Your task to perform on an android device: Open the Play Movies app and select the watchlist tab. Image 0: 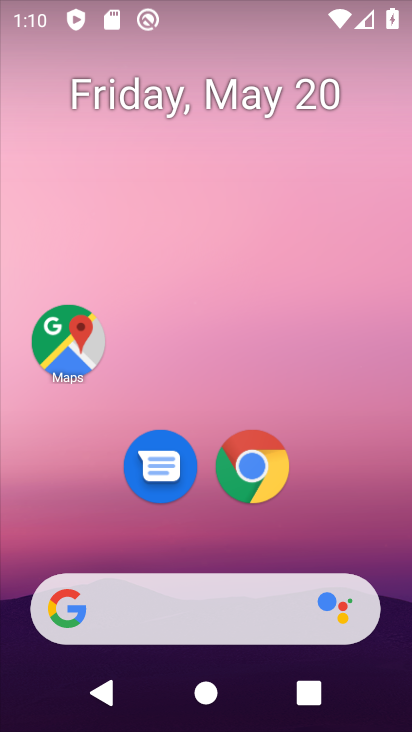
Step 0: drag from (202, 535) to (311, 140)
Your task to perform on an android device: Open the Play Movies app and select the watchlist tab. Image 1: 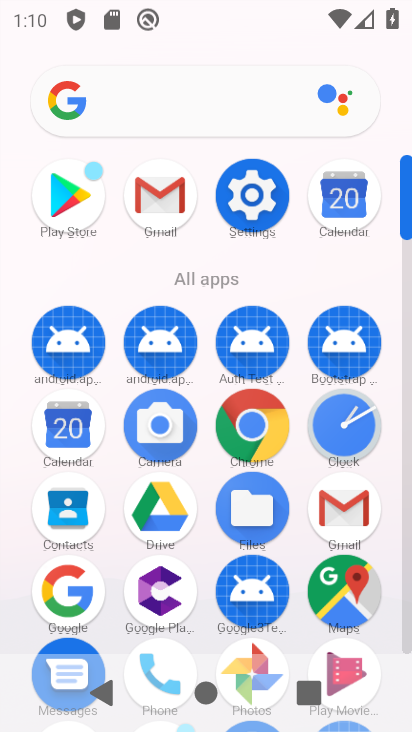
Step 1: click (75, 225)
Your task to perform on an android device: Open the Play Movies app and select the watchlist tab. Image 2: 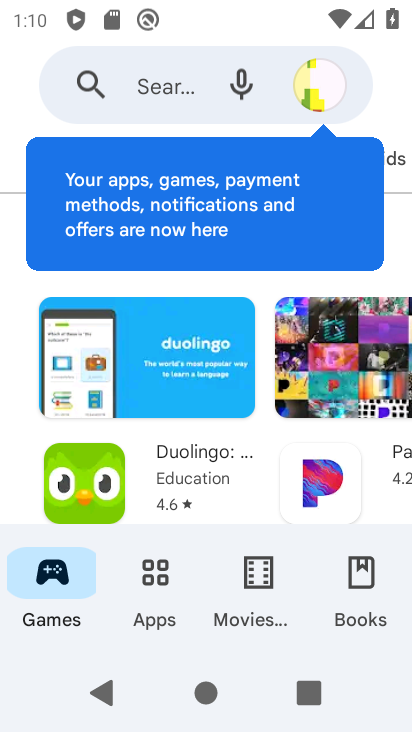
Step 2: press home button
Your task to perform on an android device: Open the Play Movies app and select the watchlist tab. Image 3: 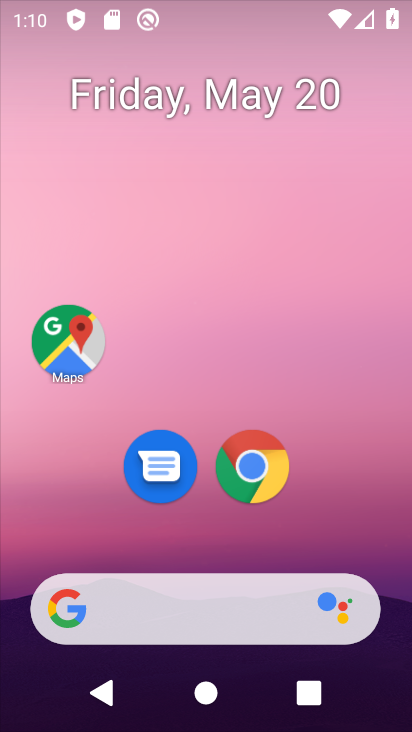
Step 3: drag from (221, 540) to (198, 153)
Your task to perform on an android device: Open the Play Movies app and select the watchlist tab. Image 4: 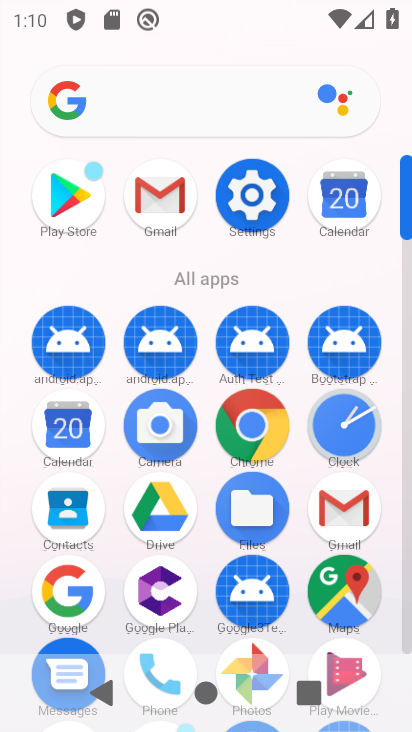
Step 4: drag from (320, 595) to (328, 374)
Your task to perform on an android device: Open the Play Movies app and select the watchlist tab. Image 5: 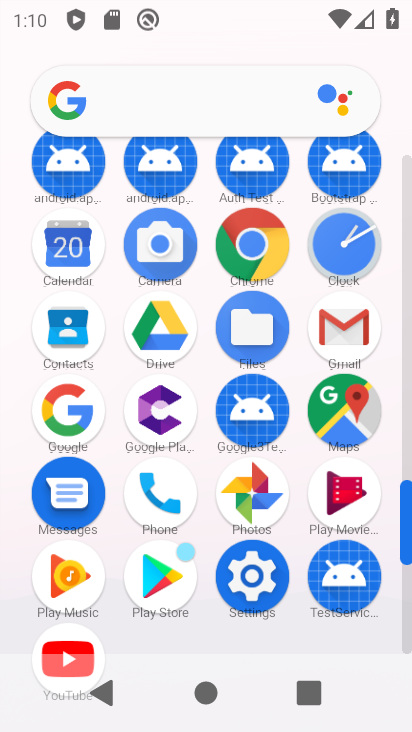
Step 5: click (343, 493)
Your task to perform on an android device: Open the Play Movies app and select the watchlist tab. Image 6: 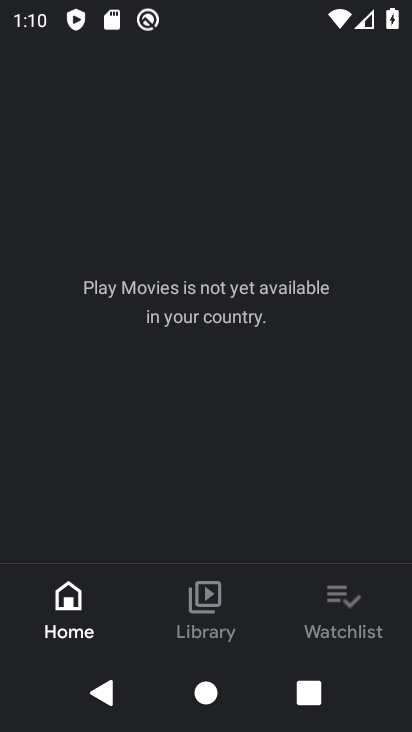
Step 6: click (350, 600)
Your task to perform on an android device: Open the Play Movies app and select the watchlist tab. Image 7: 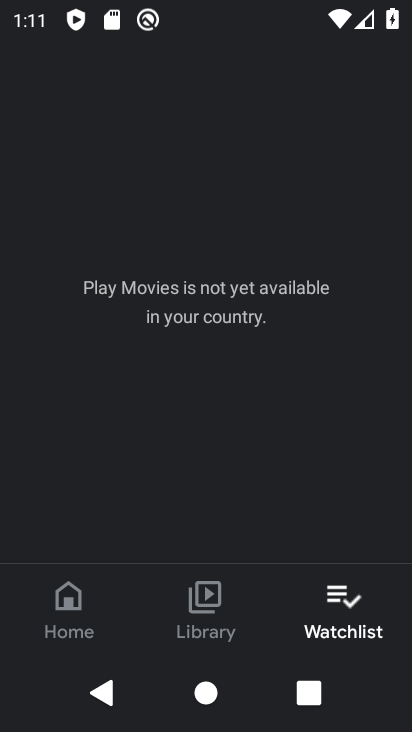
Step 7: task complete